Your task to perform on an android device: turn off priority inbox in the gmail app Image 0: 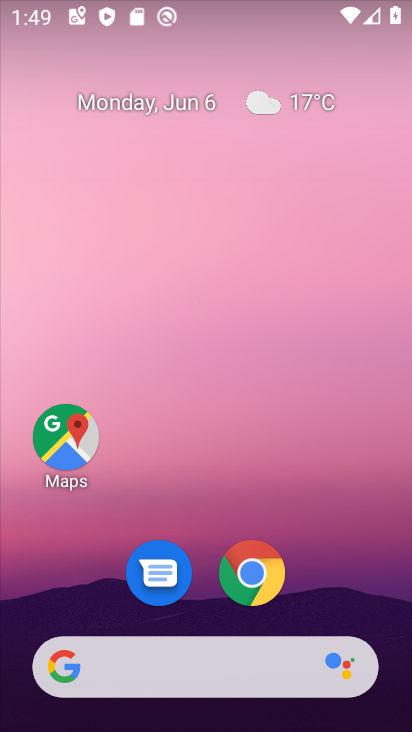
Step 0: drag from (209, 604) to (242, 109)
Your task to perform on an android device: turn off priority inbox in the gmail app Image 1: 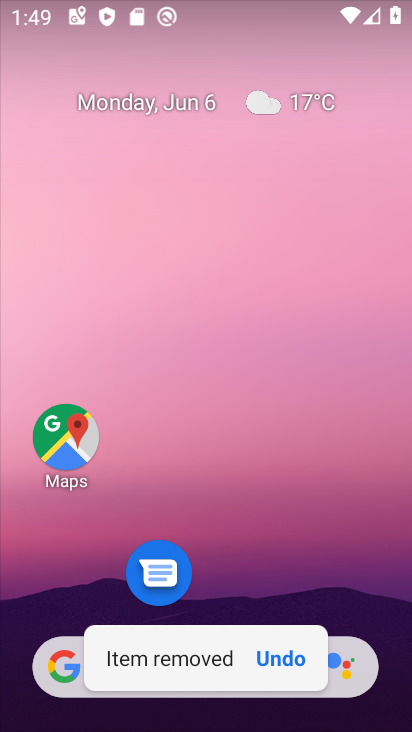
Step 1: drag from (240, 573) to (245, 96)
Your task to perform on an android device: turn off priority inbox in the gmail app Image 2: 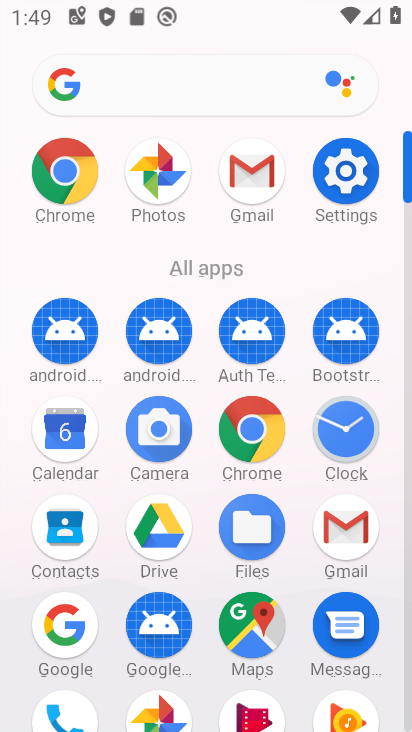
Step 2: click (258, 169)
Your task to perform on an android device: turn off priority inbox in the gmail app Image 3: 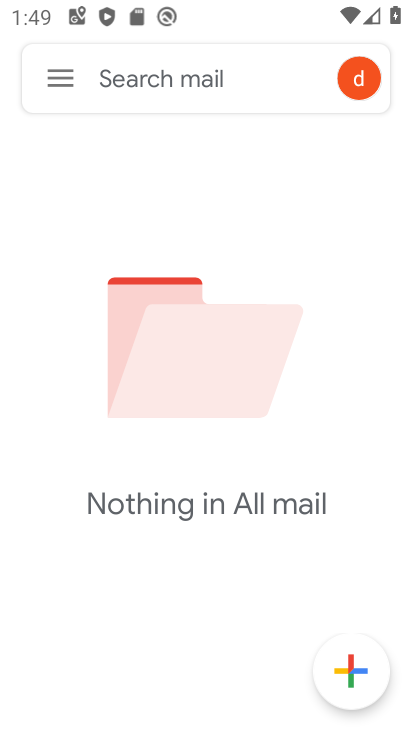
Step 3: click (54, 77)
Your task to perform on an android device: turn off priority inbox in the gmail app Image 4: 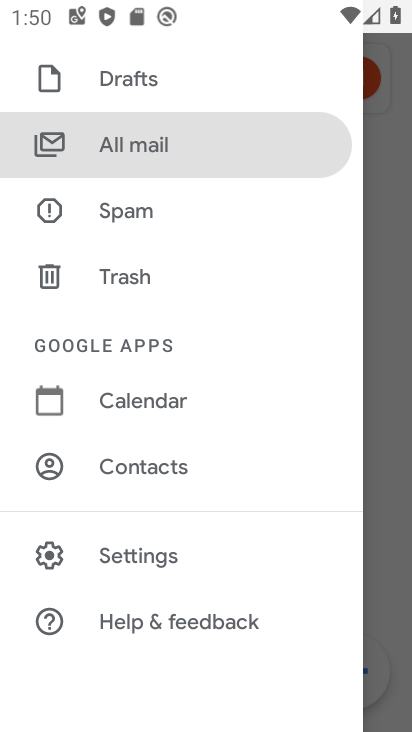
Step 4: click (127, 560)
Your task to perform on an android device: turn off priority inbox in the gmail app Image 5: 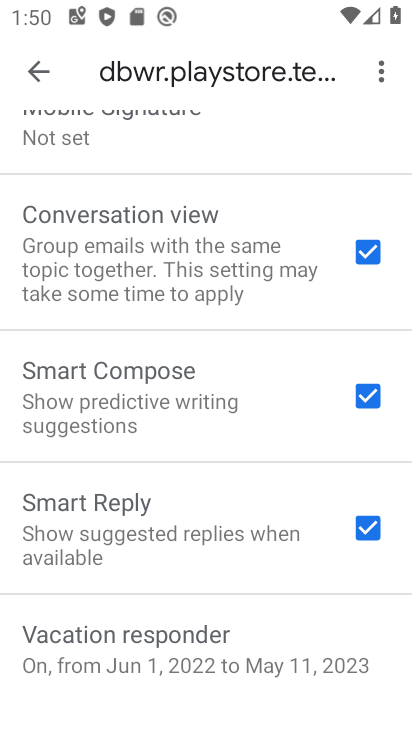
Step 5: drag from (208, 238) to (211, 625)
Your task to perform on an android device: turn off priority inbox in the gmail app Image 6: 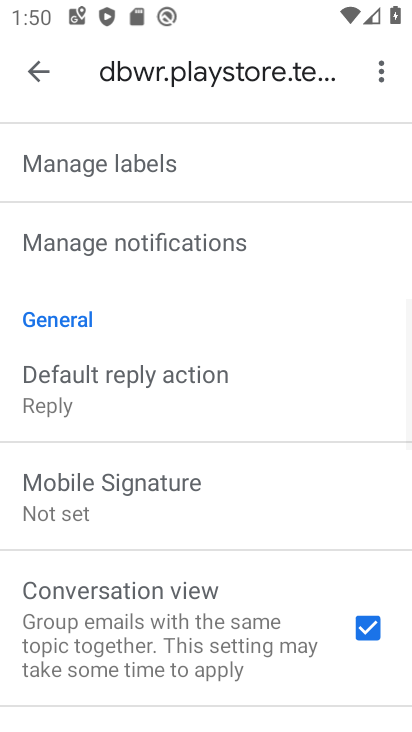
Step 6: drag from (146, 247) to (132, 628)
Your task to perform on an android device: turn off priority inbox in the gmail app Image 7: 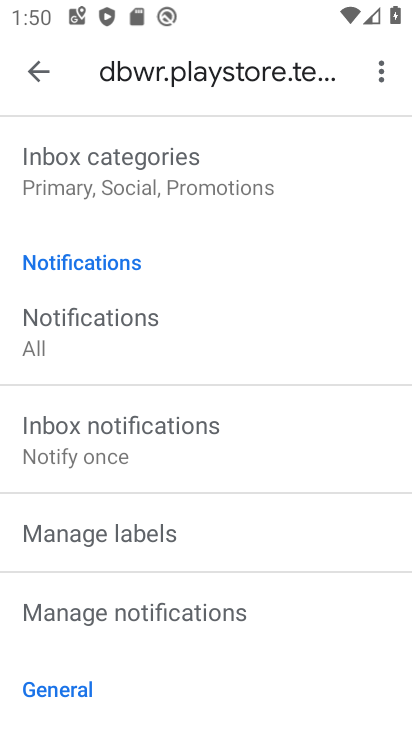
Step 7: drag from (152, 259) to (139, 629)
Your task to perform on an android device: turn off priority inbox in the gmail app Image 8: 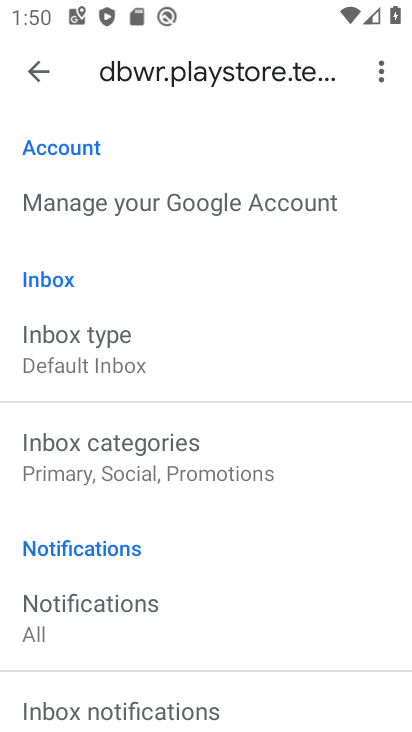
Step 8: drag from (190, 316) to (194, 459)
Your task to perform on an android device: turn off priority inbox in the gmail app Image 9: 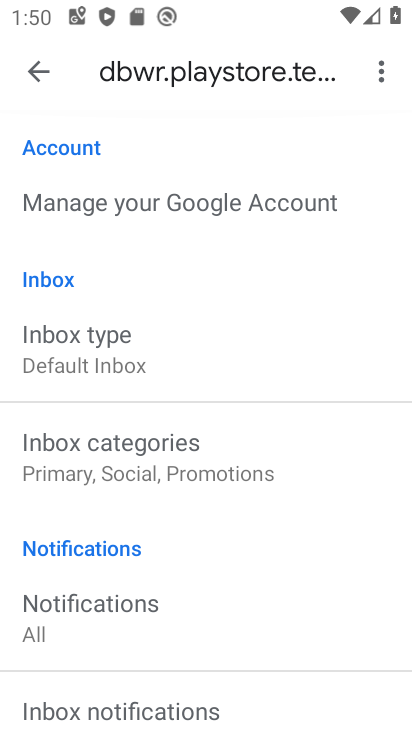
Step 9: click (94, 344)
Your task to perform on an android device: turn off priority inbox in the gmail app Image 10: 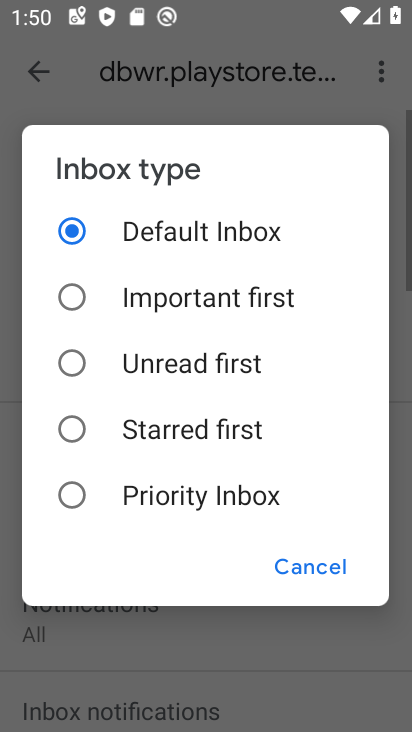
Step 10: task complete